Your task to perform on an android device: Go to Google Image 0: 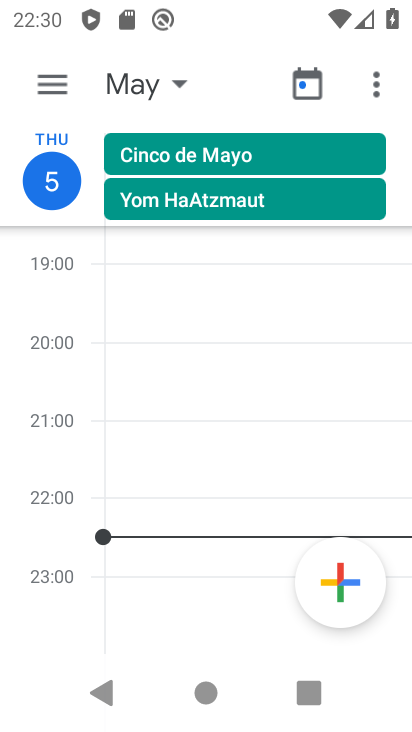
Step 0: press home button
Your task to perform on an android device: Go to Google Image 1: 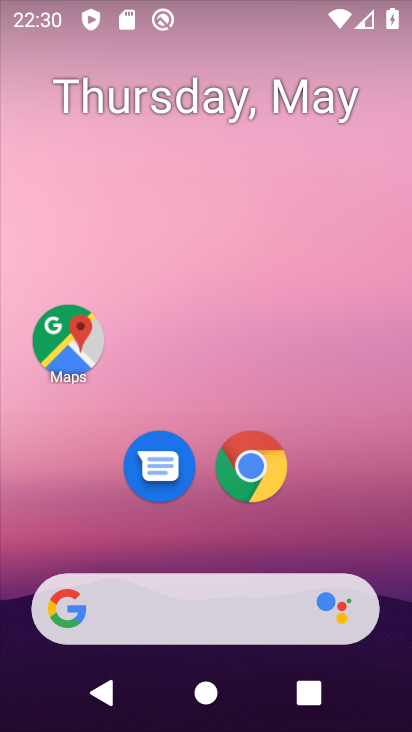
Step 1: drag from (339, 525) to (265, 33)
Your task to perform on an android device: Go to Google Image 2: 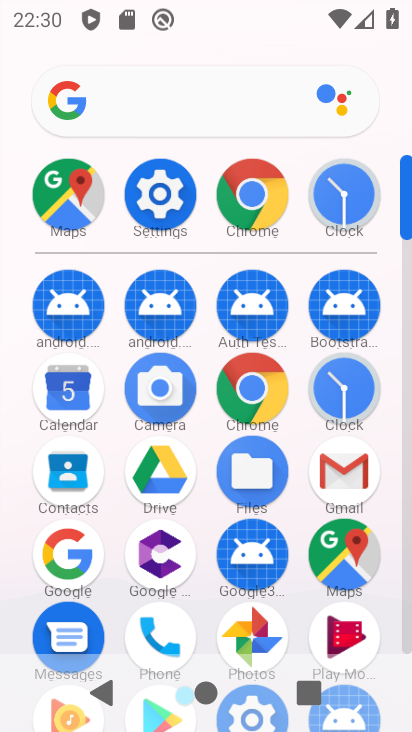
Step 2: click (73, 545)
Your task to perform on an android device: Go to Google Image 3: 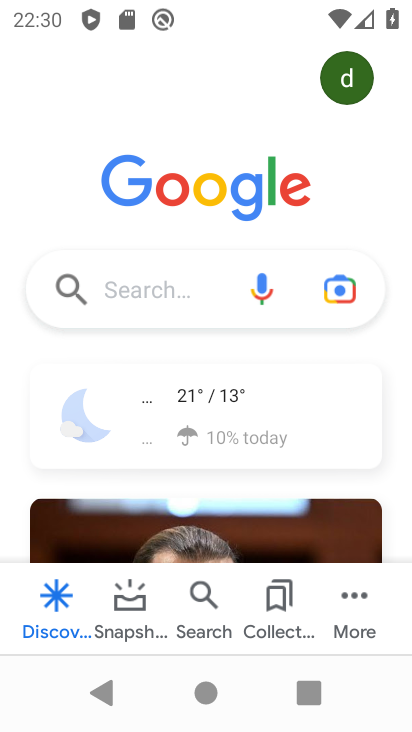
Step 3: task complete